Your task to perform on an android device: delete the emails in spam in the gmail app Image 0: 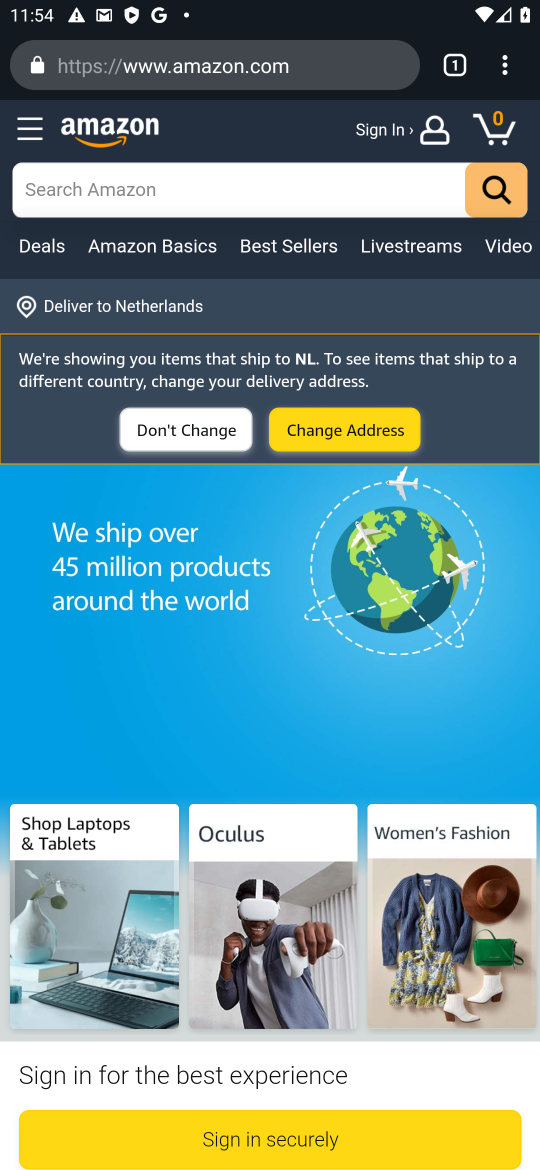
Step 0: task complete